Your task to perform on an android device: Open Android settings Image 0: 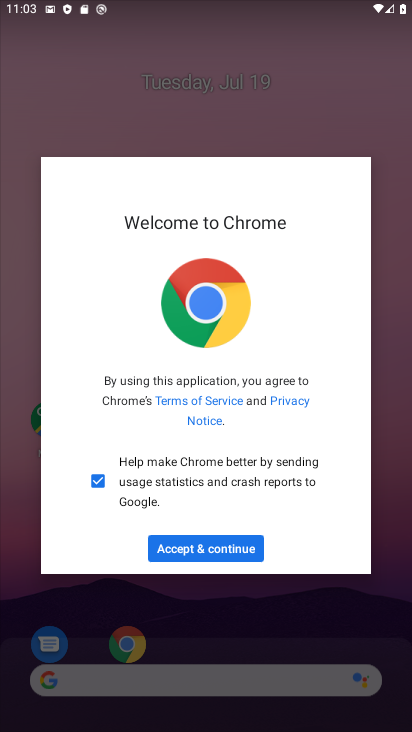
Step 0: press home button
Your task to perform on an android device: Open Android settings Image 1: 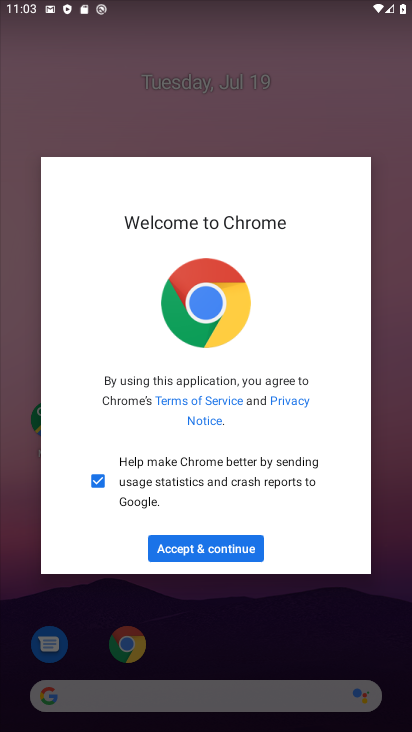
Step 1: drag from (228, 607) to (268, 16)
Your task to perform on an android device: Open Android settings Image 2: 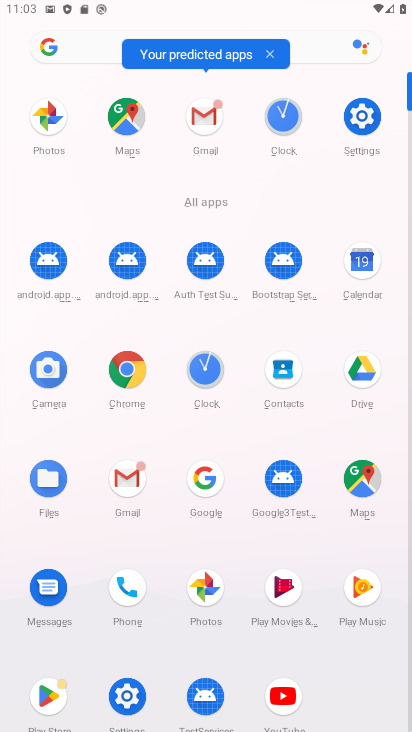
Step 2: click (130, 690)
Your task to perform on an android device: Open Android settings Image 3: 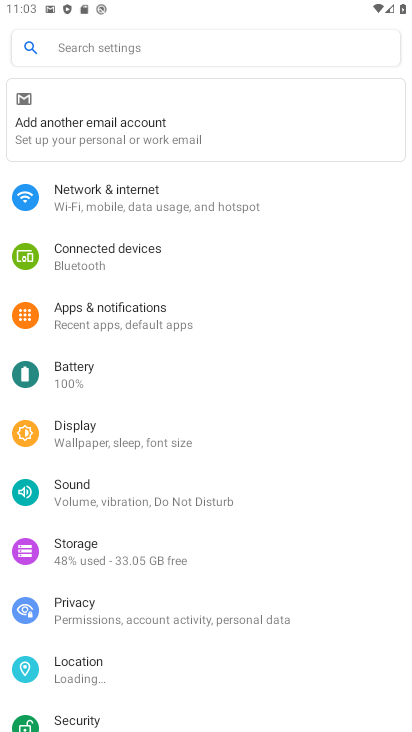
Step 3: drag from (202, 601) to (318, 4)
Your task to perform on an android device: Open Android settings Image 4: 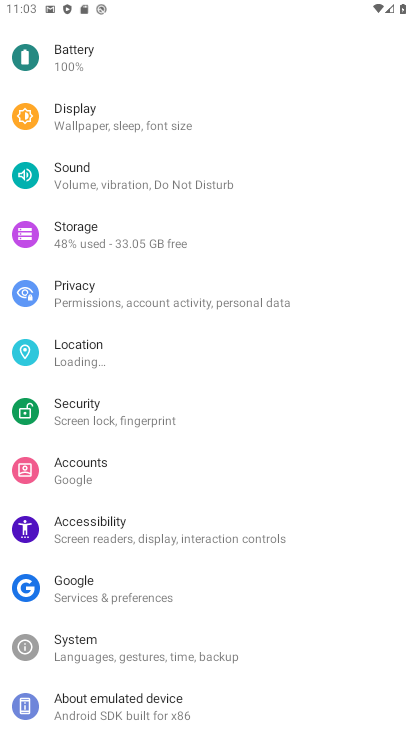
Step 4: drag from (233, 561) to (391, 5)
Your task to perform on an android device: Open Android settings Image 5: 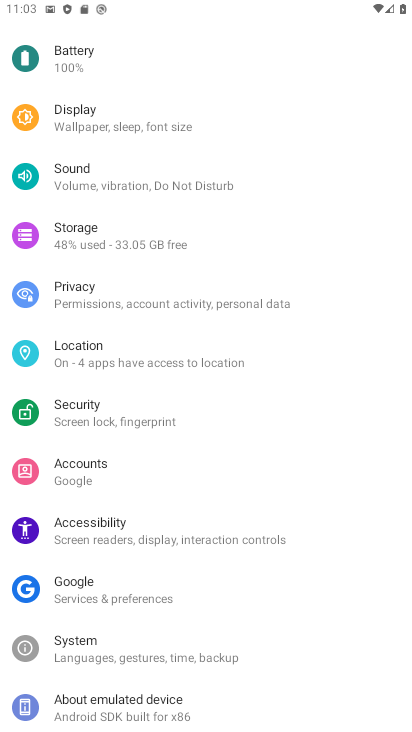
Step 5: click (91, 709)
Your task to perform on an android device: Open Android settings Image 6: 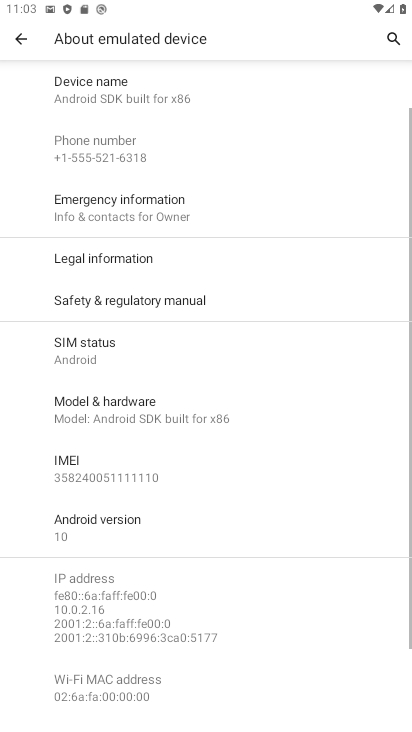
Step 6: click (123, 526)
Your task to perform on an android device: Open Android settings Image 7: 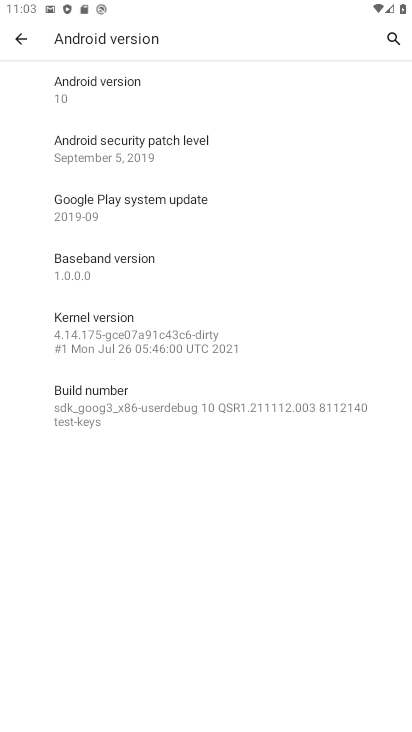
Step 7: task complete